Your task to perform on an android device: change text size in settings app Image 0: 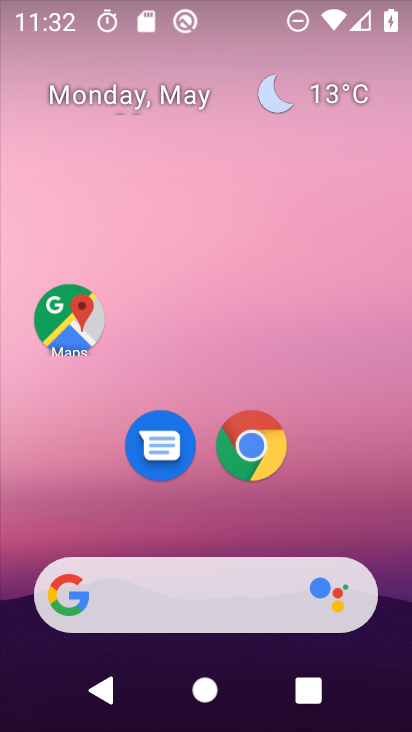
Step 0: drag from (181, 530) to (304, 19)
Your task to perform on an android device: change text size in settings app Image 1: 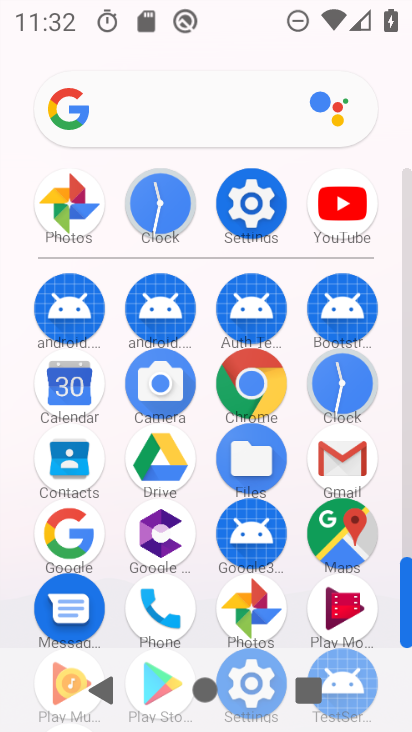
Step 1: click (244, 191)
Your task to perform on an android device: change text size in settings app Image 2: 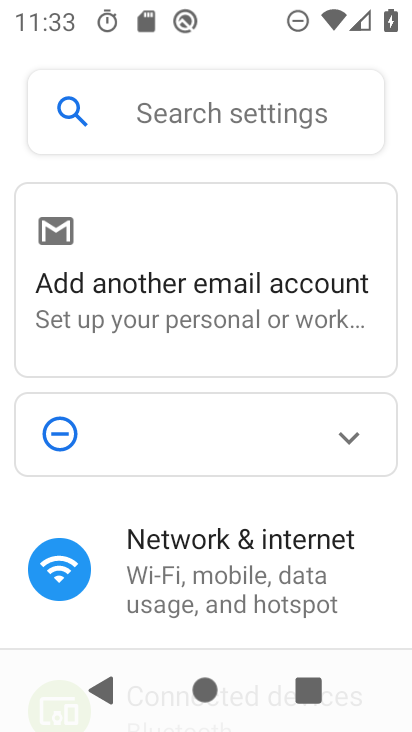
Step 2: click (176, 106)
Your task to perform on an android device: change text size in settings app Image 3: 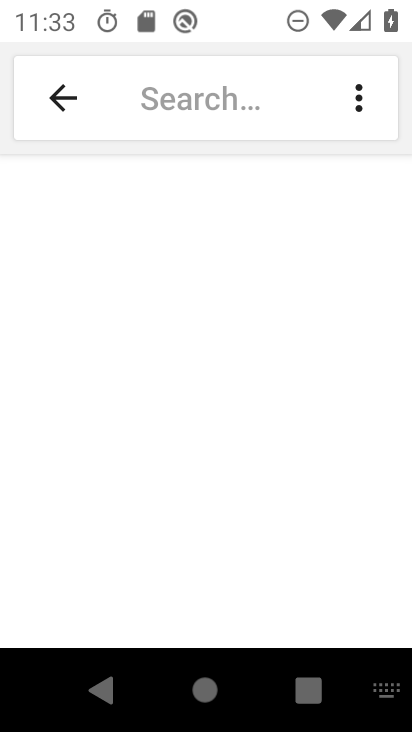
Step 3: type "text size"
Your task to perform on an android device: change text size in settings app Image 4: 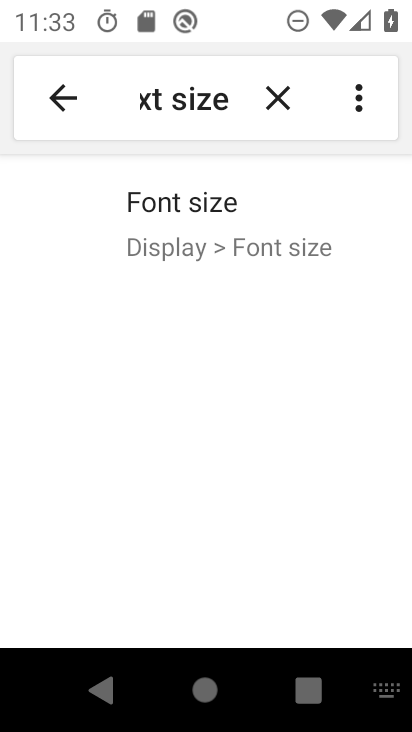
Step 4: click (217, 243)
Your task to perform on an android device: change text size in settings app Image 5: 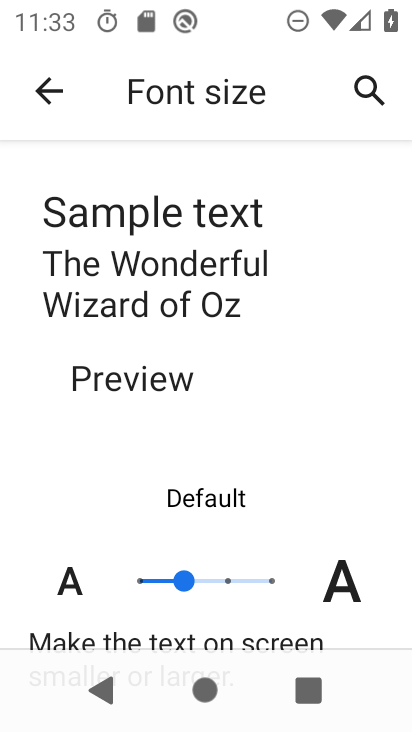
Step 5: task complete